Your task to perform on an android device: toggle show notifications on the lock screen Image 0: 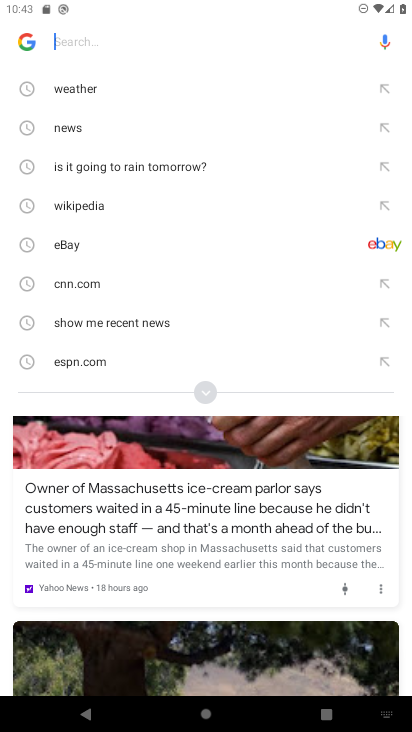
Step 0: press home button
Your task to perform on an android device: toggle show notifications on the lock screen Image 1: 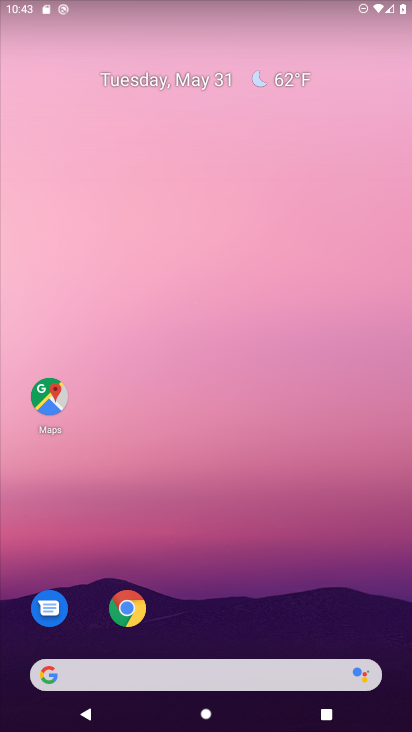
Step 1: drag from (318, 618) to (322, 127)
Your task to perform on an android device: toggle show notifications on the lock screen Image 2: 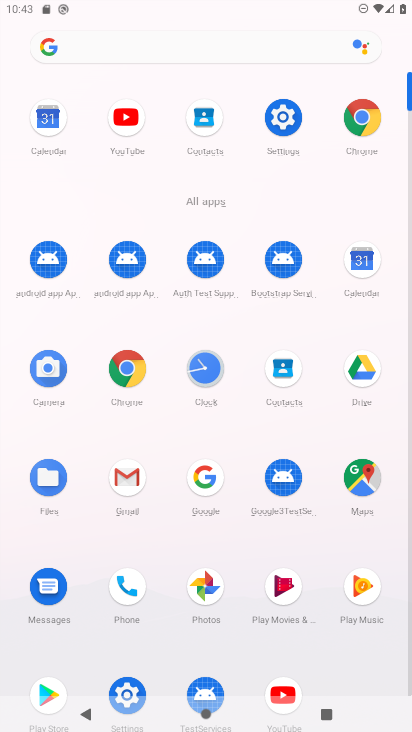
Step 2: click (286, 117)
Your task to perform on an android device: toggle show notifications on the lock screen Image 3: 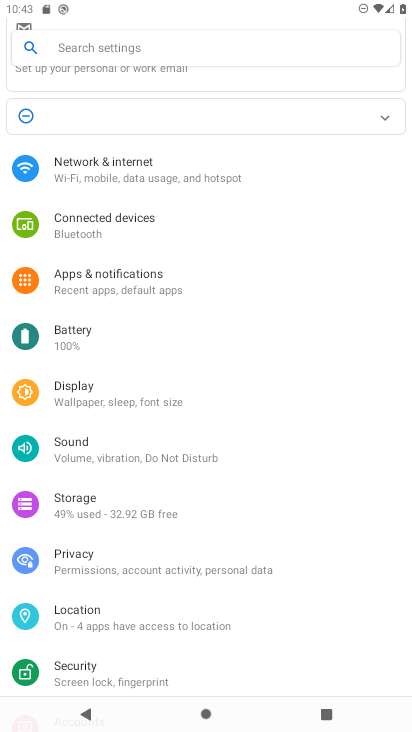
Step 3: click (177, 276)
Your task to perform on an android device: toggle show notifications on the lock screen Image 4: 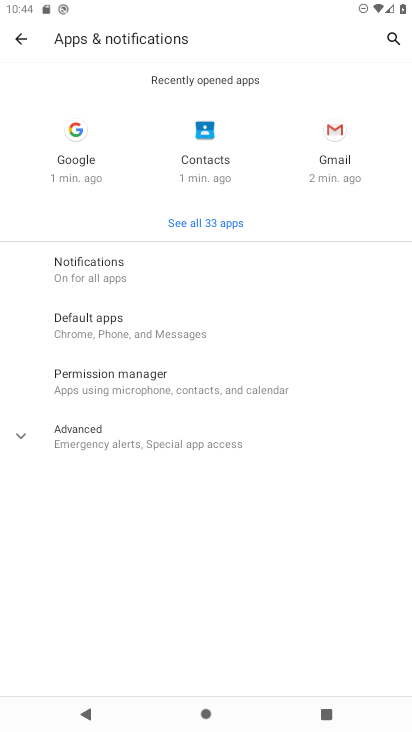
Step 4: click (183, 274)
Your task to perform on an android device: toggle show notifications on the lock screen Image 5: 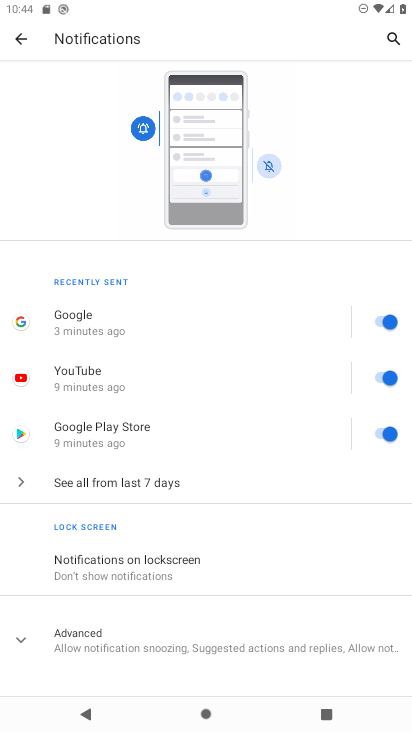
Step 5: drag from (227, 545) to (219, 341)
Your task to perform on an android device: toggle show notifications on the lock screen Image 6: 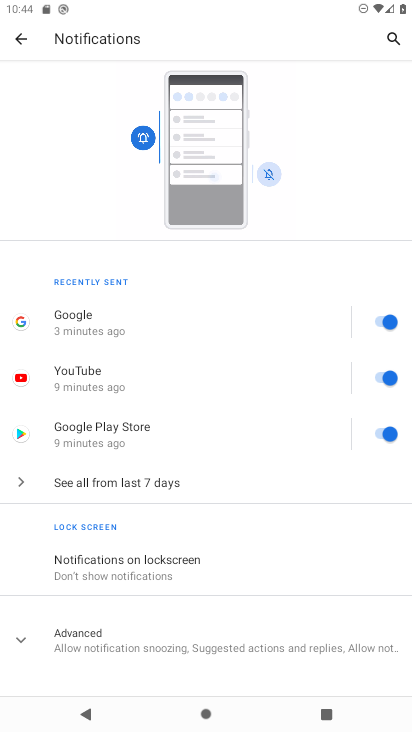
Step 6: click (215, 561)
Your task to perform on an android device: toggle show notifications on the lock screen Image 7: 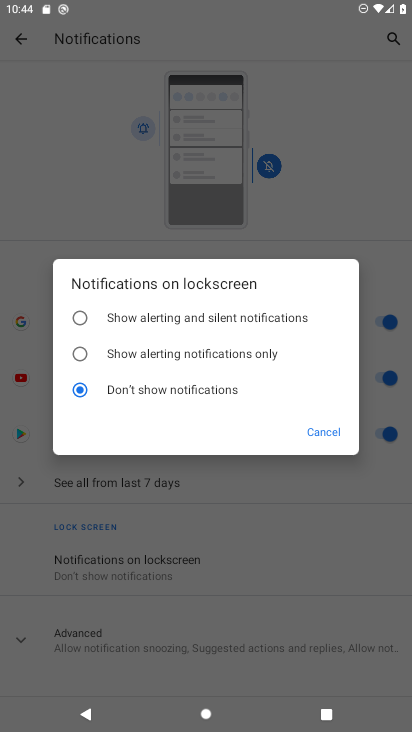
Step 7: click (88, 318)
Your task to perform on an android device: toggle show notifications on the lock screen Image 8: 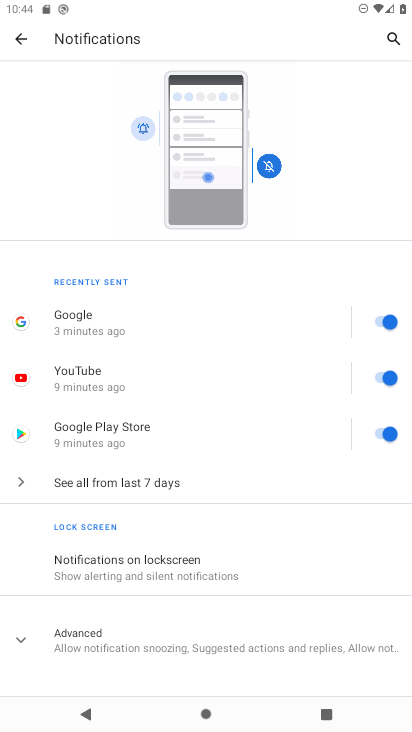
Step 8: task complete